Your task to perform on an android device: Search for Mexican restaurants on Maps Image 0: 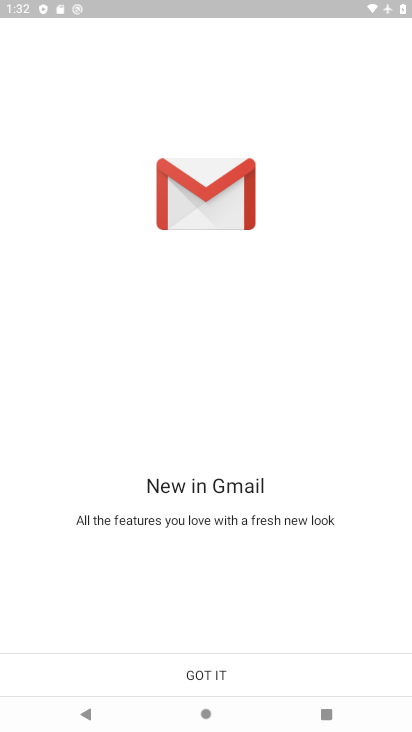
Step 0: press home button
Your task to perform on an android device: Search for Mexican restaurants on Maps Image 1: 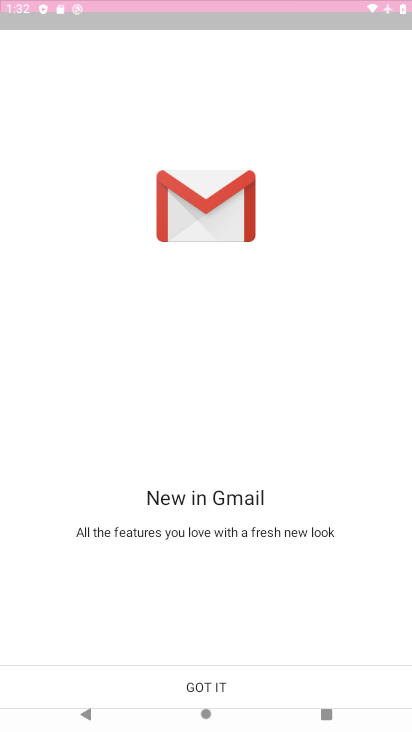
Step 1: press home button
Your task to perform on an android device: Search for Mexican restaurants on Maps Image 2: 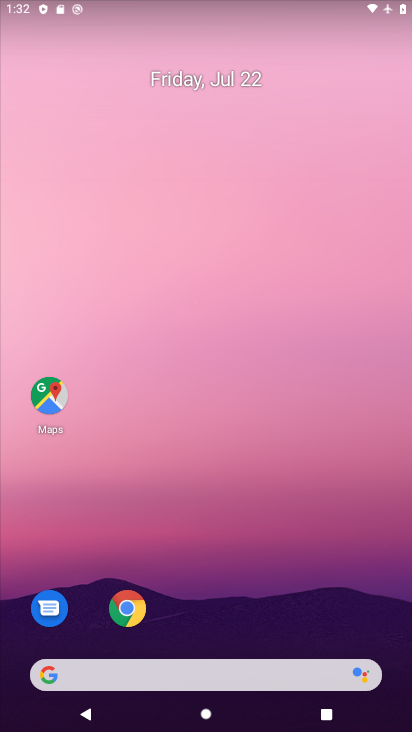
Step 2: drag from (231, 730) to (229, 210)
Your task to perform on an android device: Search for Mexican restaurants on Maps Image 3: 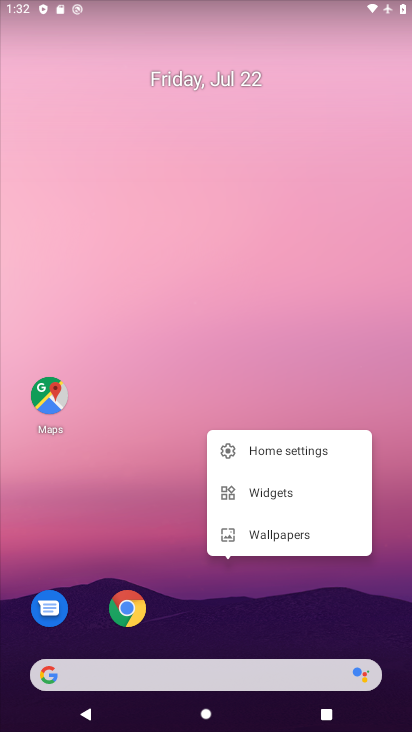
Step 3: click (243, 290)
Your task to perform on an android device: Search for Mexican restaurants on Maps Image 4: 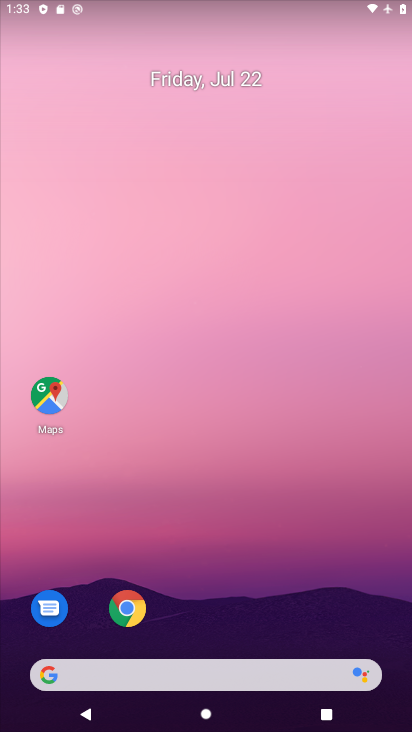
Step 4: drag from (239, 710) to (238, 268)
Your task to perform on an android device: Search for Mexican restaurants on Maps Image 5: 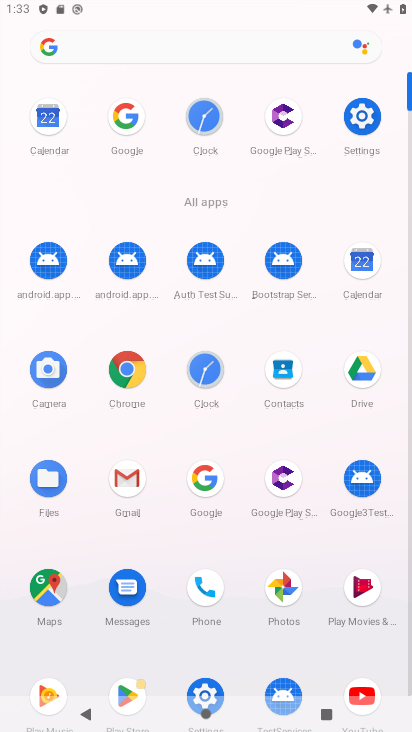
Step 5: click (46, 584)
Your task to perform on an android device: Search for Mexican restaurants on Maps Image 6: 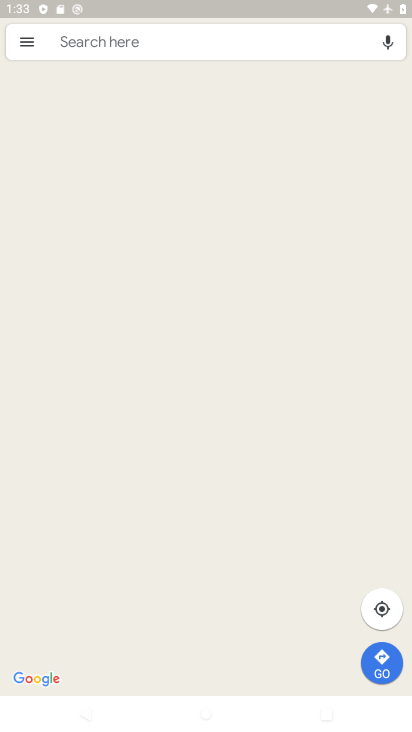
Step 6: click (259, 39)
Your task to perform on an android device: Search for Mexican restaurants on Maps Image 7: 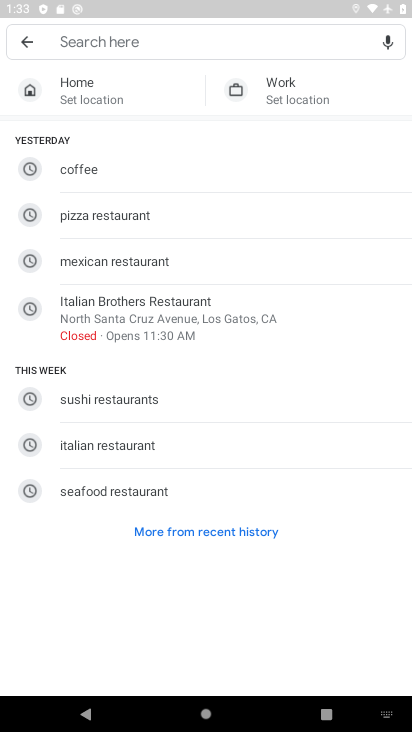
Step 7: type "Mexican restaurants"
Your task to perform on an android device: Search for Mexican restaurants on Maps Image 8: 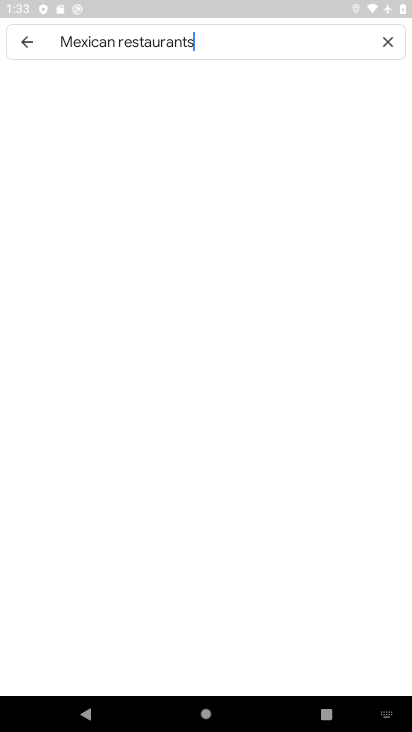
Step 8: type ""
Your task to perform on an android device: Search for Mexican restaurants on Maps Image 9: 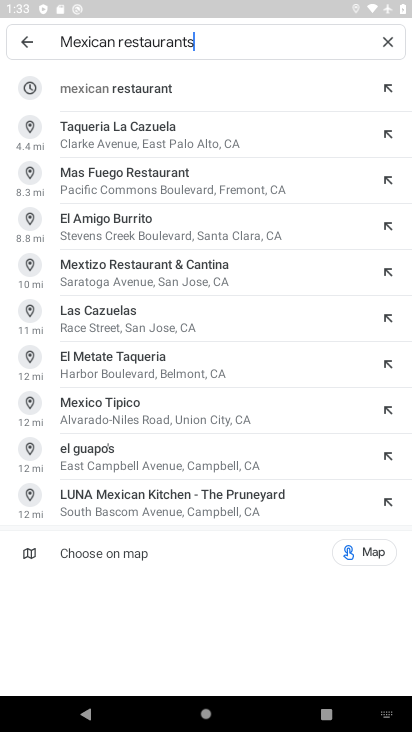
Step 9: click (145, 91)
Your task to perform on an android device: Search for Mexican restaurants on Maps Image 10: 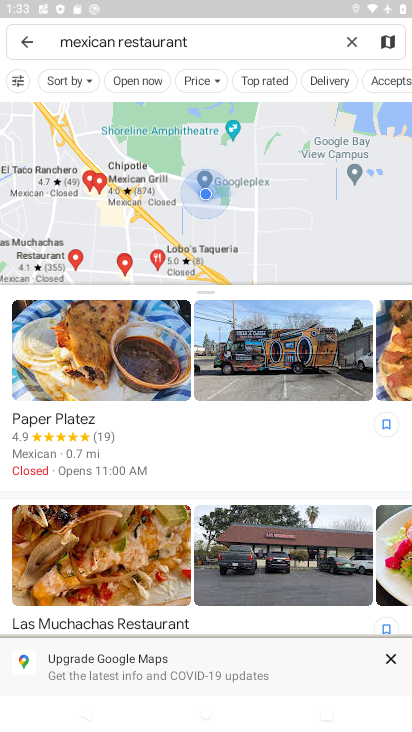
Step 10: task complete